Your task to perform on an android device: Do I have any events tomorrow? Image 0: 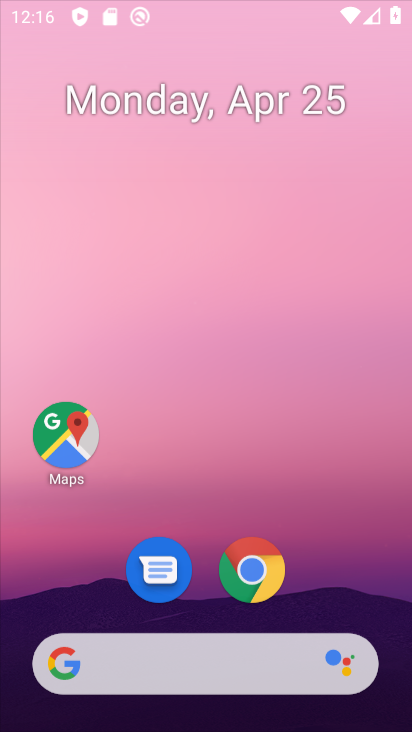
Step 0: click (149, 27)
Your task to perform on an android device: Do I have any events tomorrow? Image 1: 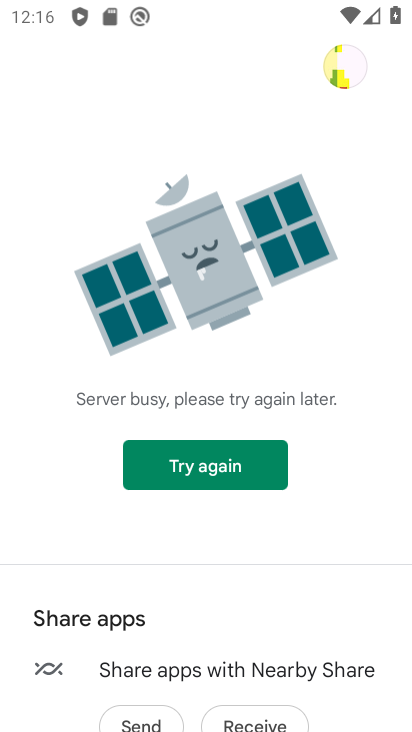
Step 1: press home button
Your task to perform on an android device: Do I have any events tomorrow? Image 2: 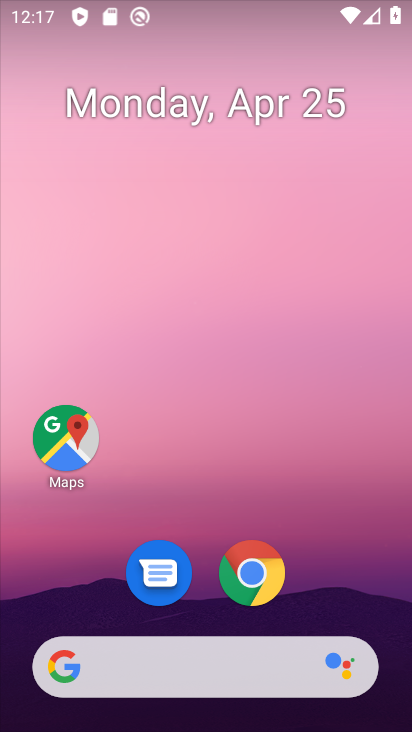
Step 2: drag from (232, 683) to (276, 138)
Your task to perform on an android device: Do I have any events tomorrow? Image 3: 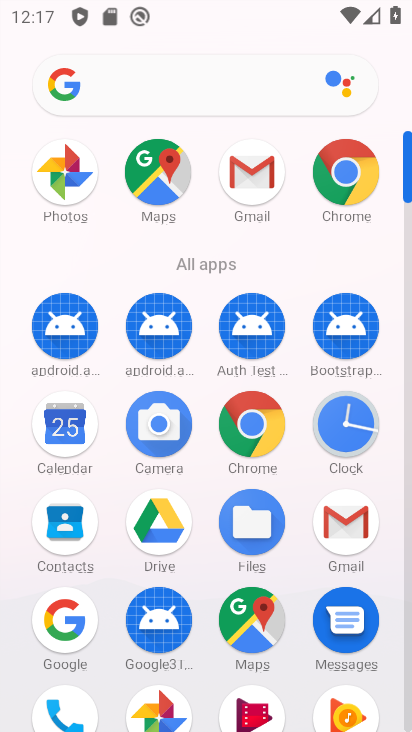
Step 3: click (57, 432)
Your task to perform on an android device: Do I have any events tomorrow? Image 4: 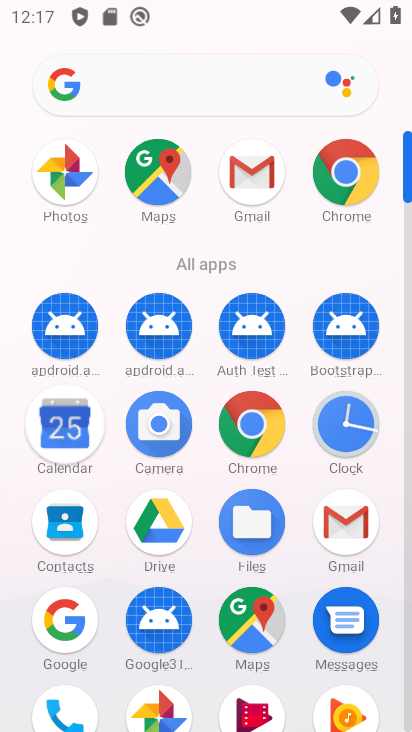
Step 4: click (23, 422)
Your task to perform on an android device: Do I have any events tomorrow? Image 5: 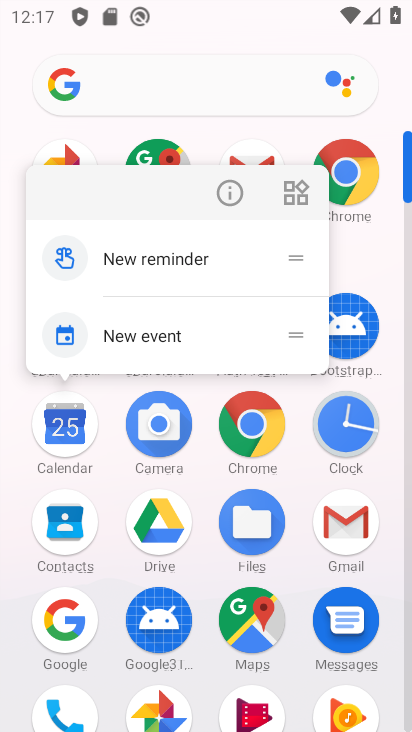
Step 5: click (58, 441)
Your task to perform on an android device: Do I have any events tomorrow? Image 6: 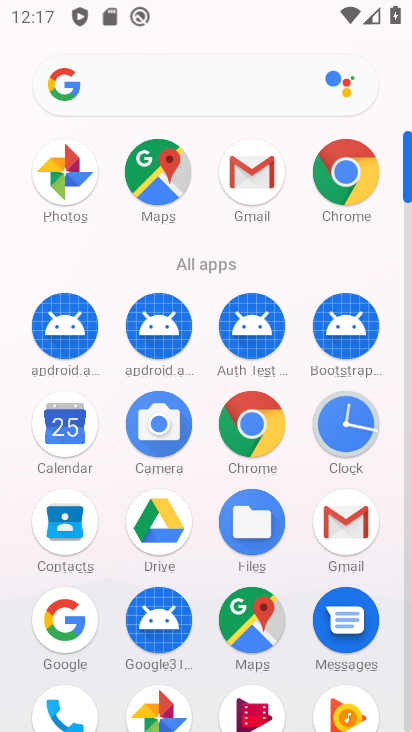
Step 6: click (48, 431)
Your task to perform on an android device: Do I have any events tomorrow? Image 7: 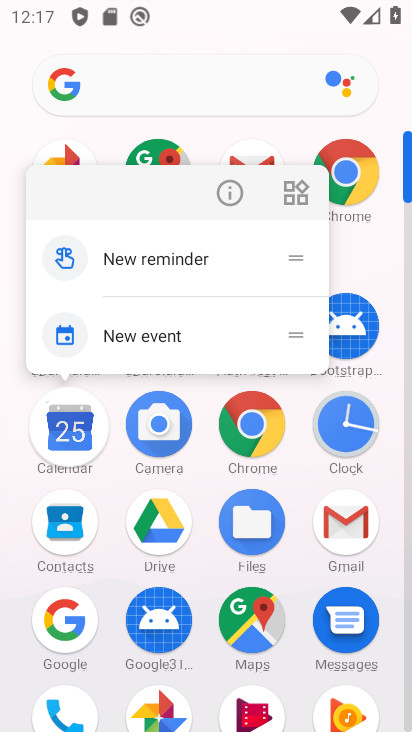
Step 7: click (56, 435)
Your task to perform on an android device: Do I have any events tomorrow? Image 8: 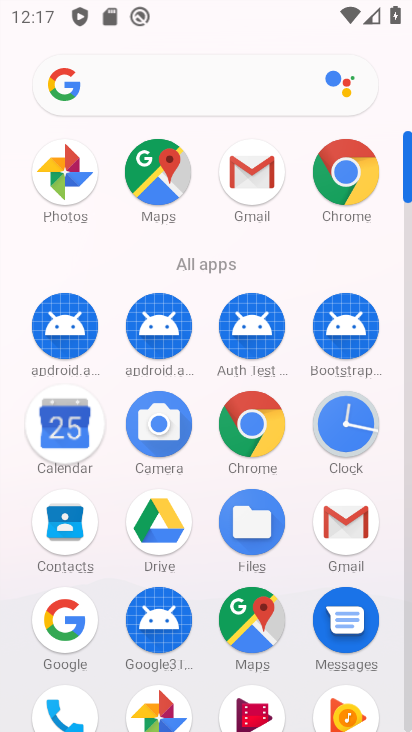
Step 8: click (55, 432)
Your task to perform on an android device: Do I have any events tomorrow? Image 9: 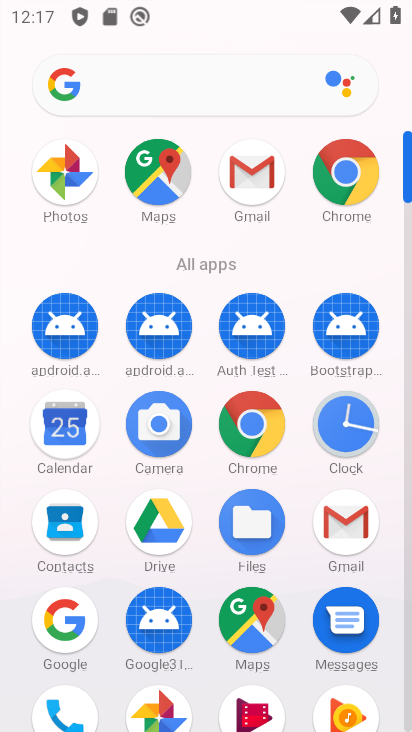
Step 9: click (55, 432)
Your task to perform on an android device: Do I have any events tomorrow? Image 10: 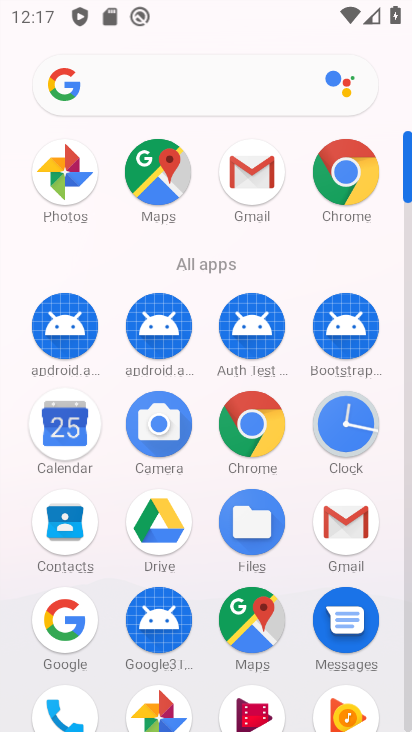
Step 10: click (55, 432)
Your task to perform on an android device: Do I have any events tomorrow? Image 11: 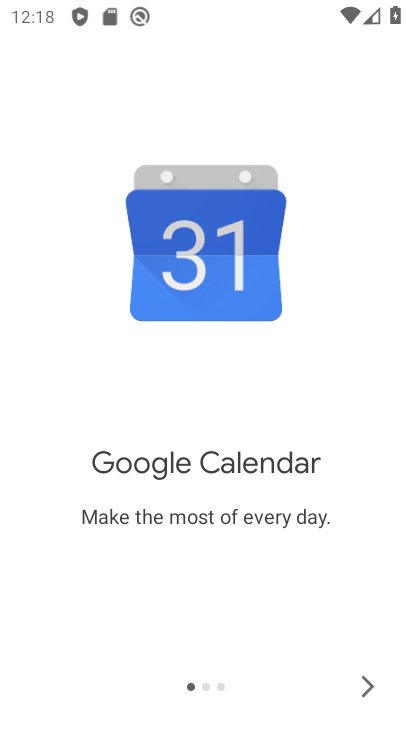
Step 11: click (363, 690)
Your task to perform on an android device: Do I have any events tomorrow? Image 12: 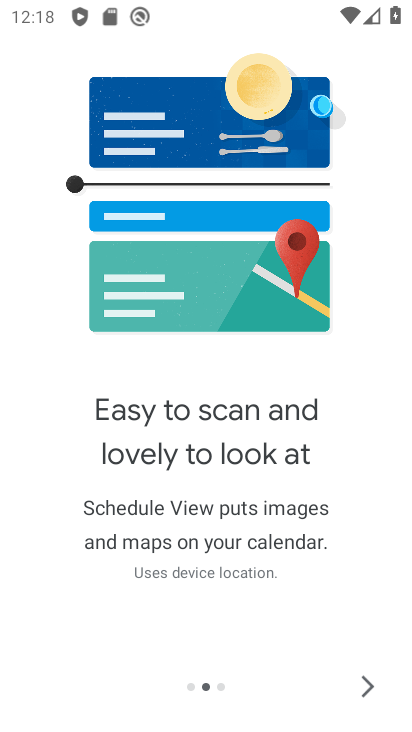
Step 12: click (372, 680)
Your task to perform on an android device: Do I have any events tomorrow? Image 13: 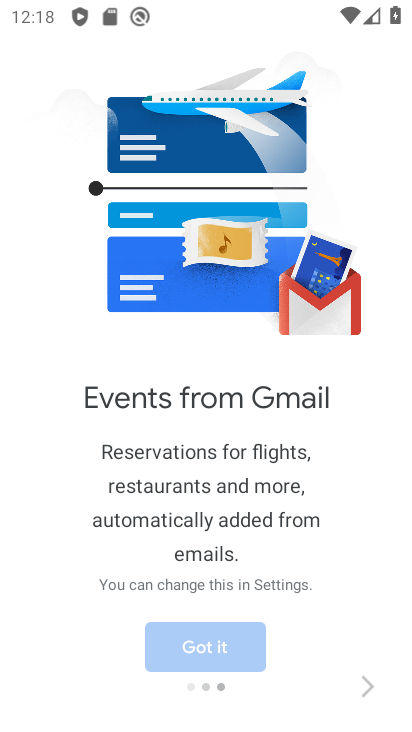
Step 13: click (366, 689)
Your task to perform on an android device: Do I have any events tomorrow? Image 14: 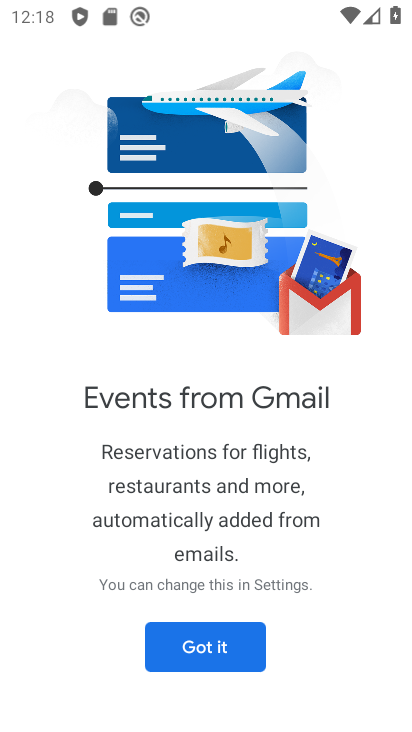
Step 14: click (191, 637)
Your task to perform on an android device: Do I have any events tomorrow? Image 15: 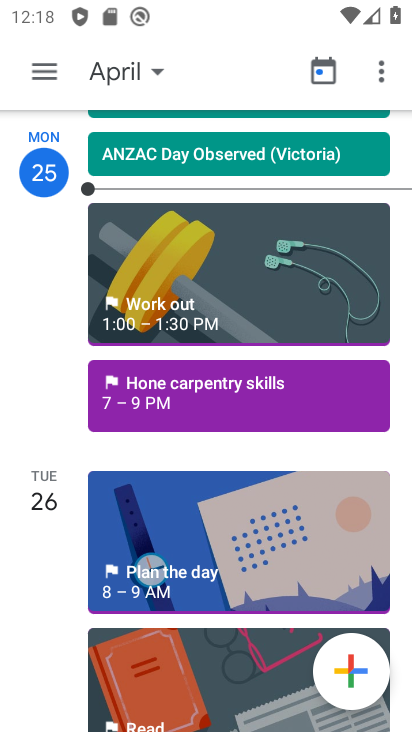
Step 15: drag from (173, 165) to (260, 6)
Your task to perform on an android device: Do I have any events tomorrow? Image 16: 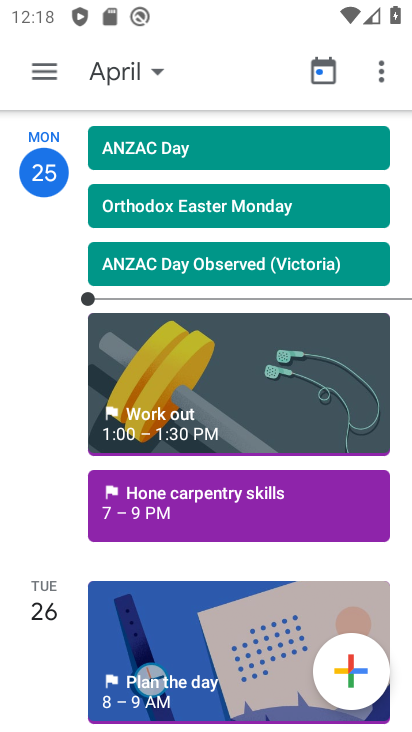
Step 16: drag from (205, 412) to (187, 107)
Your task to perform on an android device: Do I have any events tomorrow? Image 17: 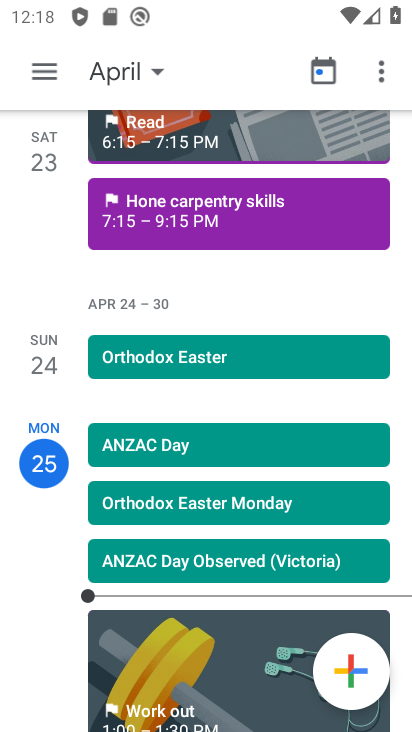
Step 17: drag from (213, 564) to (180, 51)
Your task to perform on an android device: Do I have any events tomorrow? Image 18: 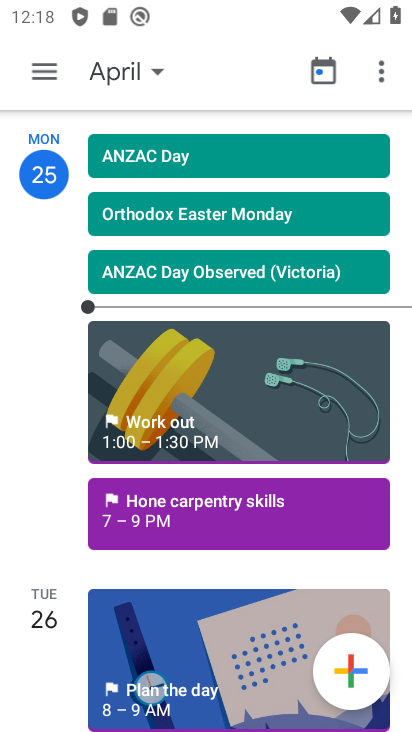
Step 18: drag from (178, 410) to (96, 1)
Your task to perform on an android device: Do I have any events tomorrow? Image 19: 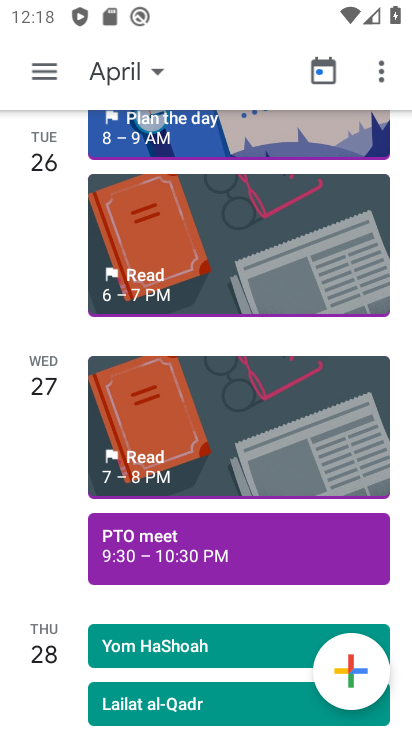
Step 19: drag from (135, 408) to (217, 137)
Your task to perform on an android device: Do I have any events tomorrow? Image 20: 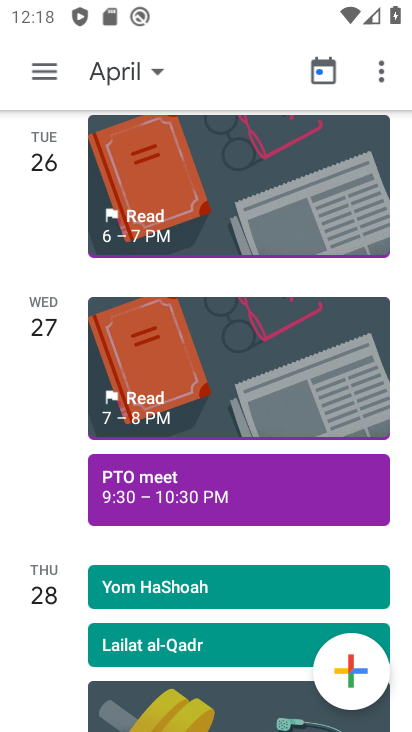
Step 20: click (128, 258)
Your task to perform on an android device: Do I have any events tomorrow? Image 21: 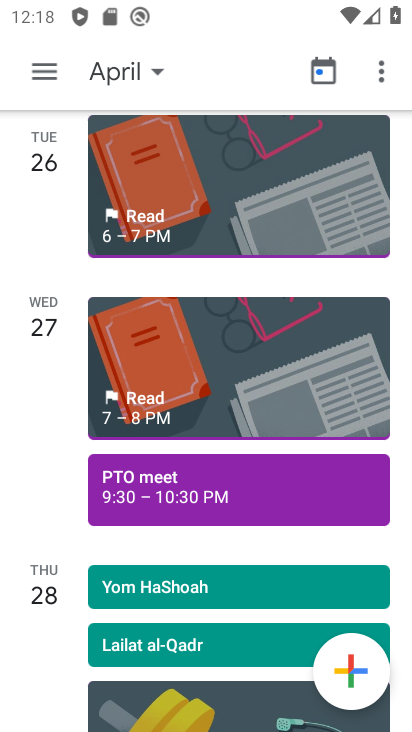
Step 21: click (128, 258)
Your task to perform on an android device: Do I have any events tomorrow? Image 22: 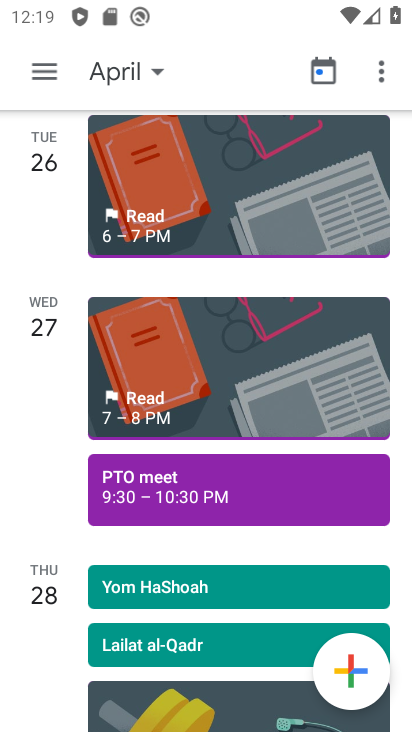
Step 22: click (150, 373)
Your task to perform on an android device: Do I have any events tomorrow? Image 23: 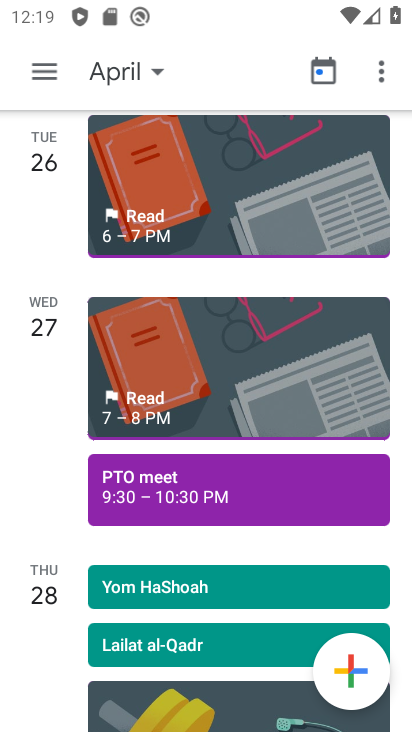
Step 23: click (162, 356)
Your task to perform on an android device: Do I have any events tomorrow? Image 24: 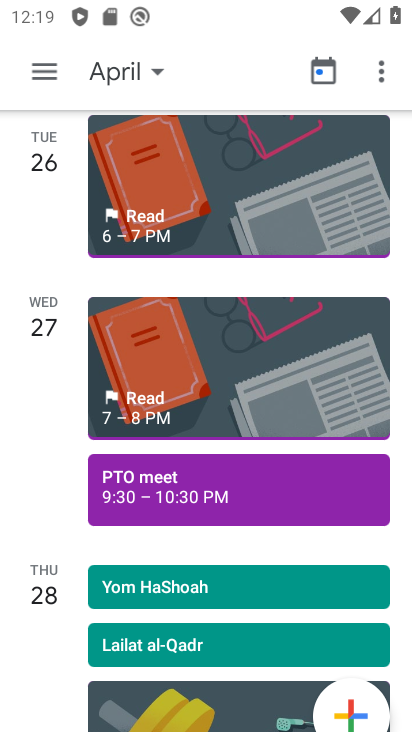
Step 24: click (165, 354)
Your task to perform on an android device: Do I have any events tomorrow? Image 25: 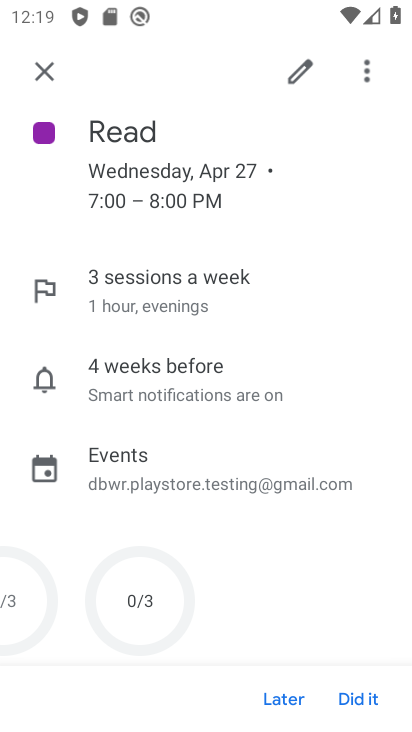
Step 25: click (37, 64)
Your task to perform on an android device: Do I have any events tomorrow? Image 26: 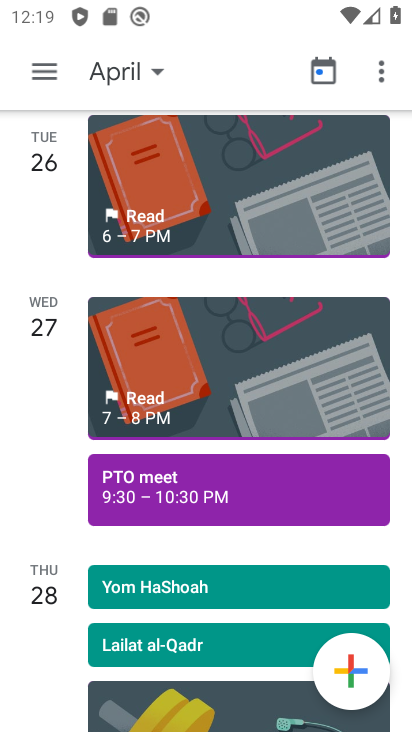
Step 26: task complete